Your task to perform on an android device: clear history in the chrome app Image 0: 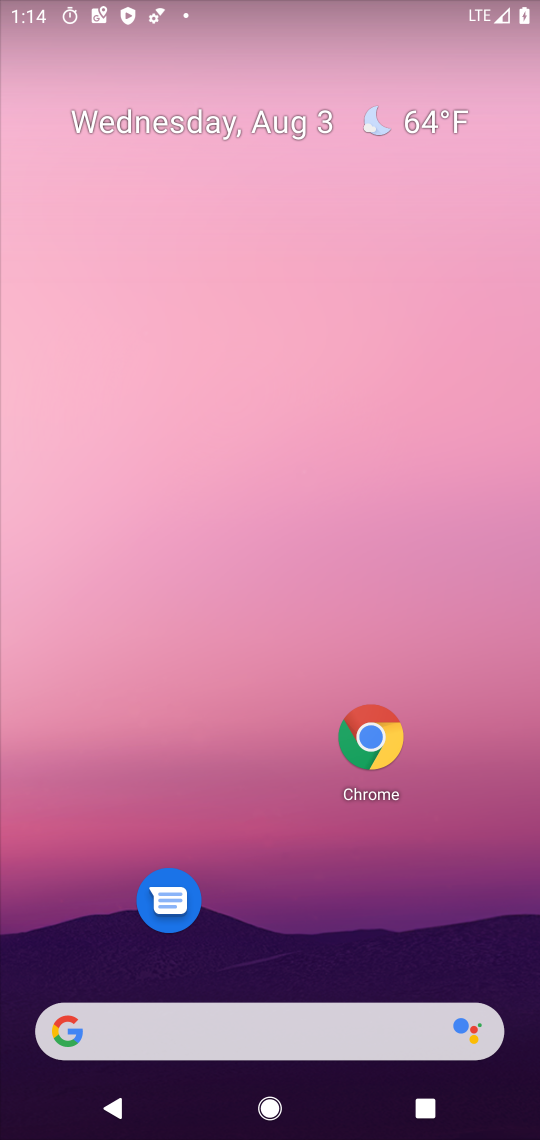
Step 0: drag from (372, 859) to (318, 31)
Your task to perform on an android device: clear history in the chrome app Image 1: 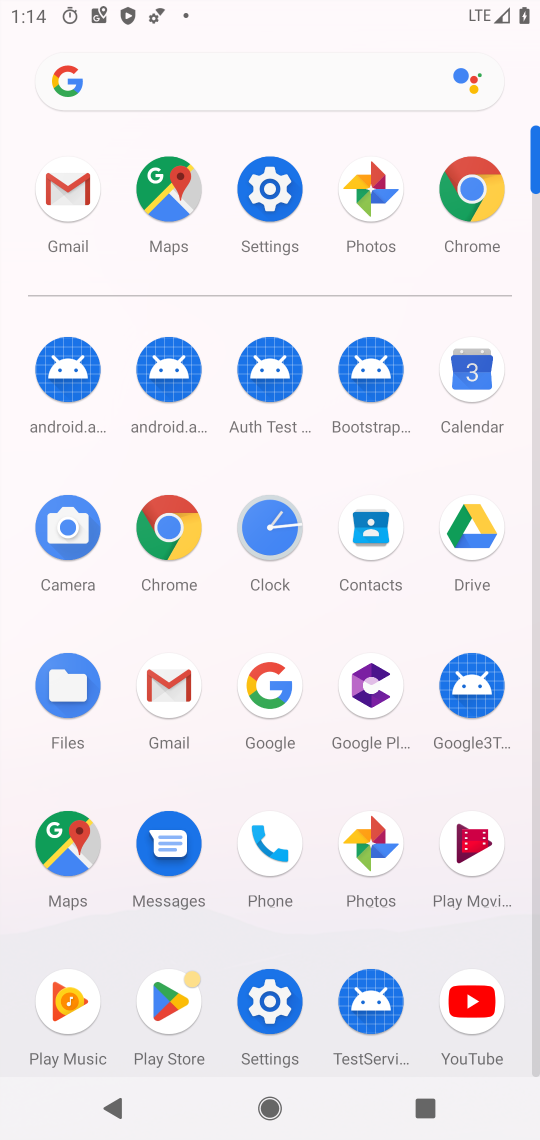
Step 1: click (167, 527)
Your task to perform on an android device: clear history in the chrome app Image 2: 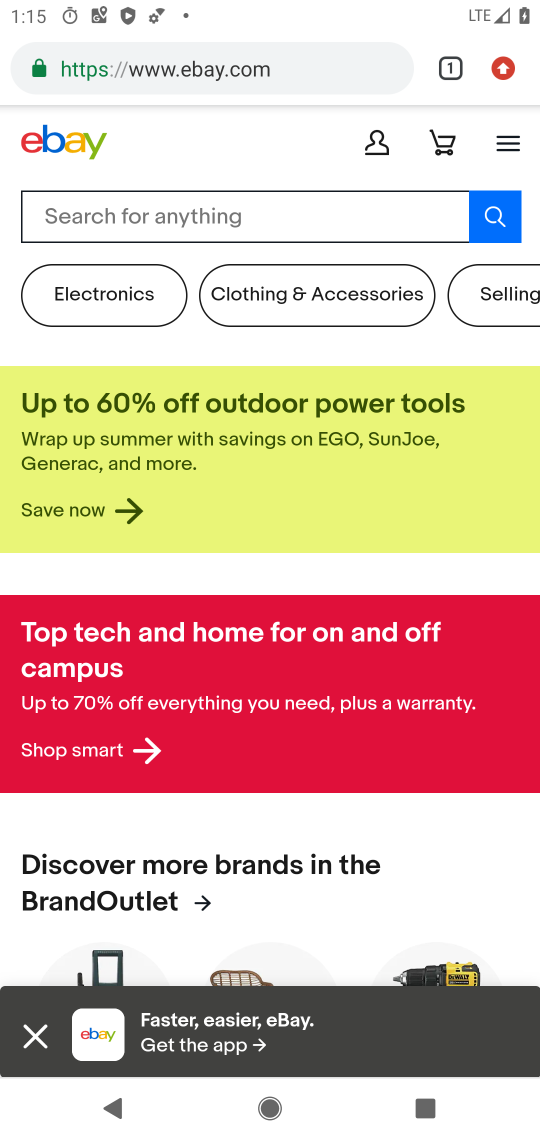
Step 2: drag from (530, 57) to (269, 480)
Your task to perform on an android device: clear history in the chrome app Image 3: 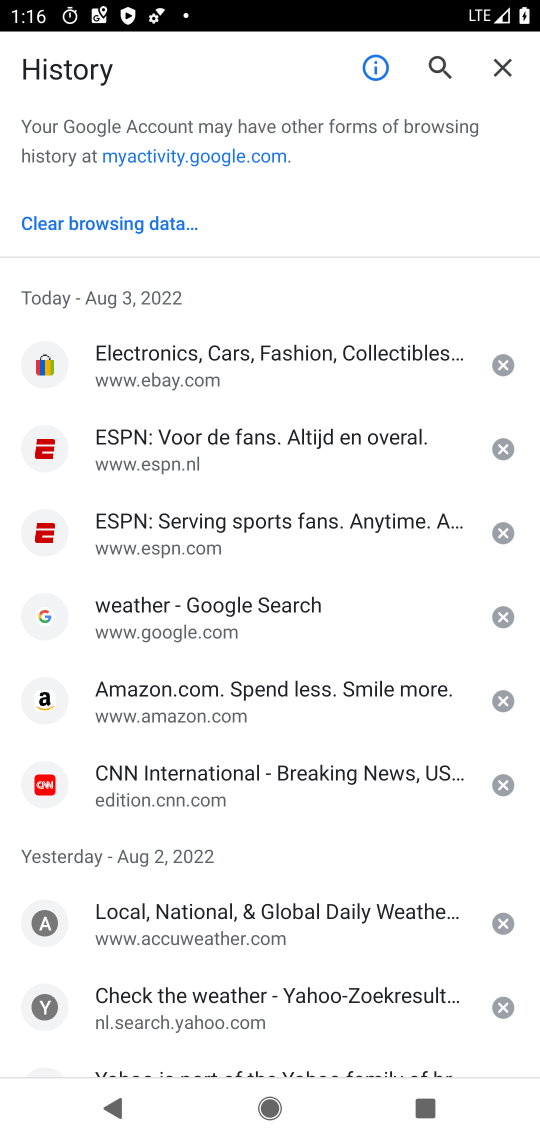
Step 3: click (169, 210)
Your task to perform on an android device: clear history in the chrome app Image 4: 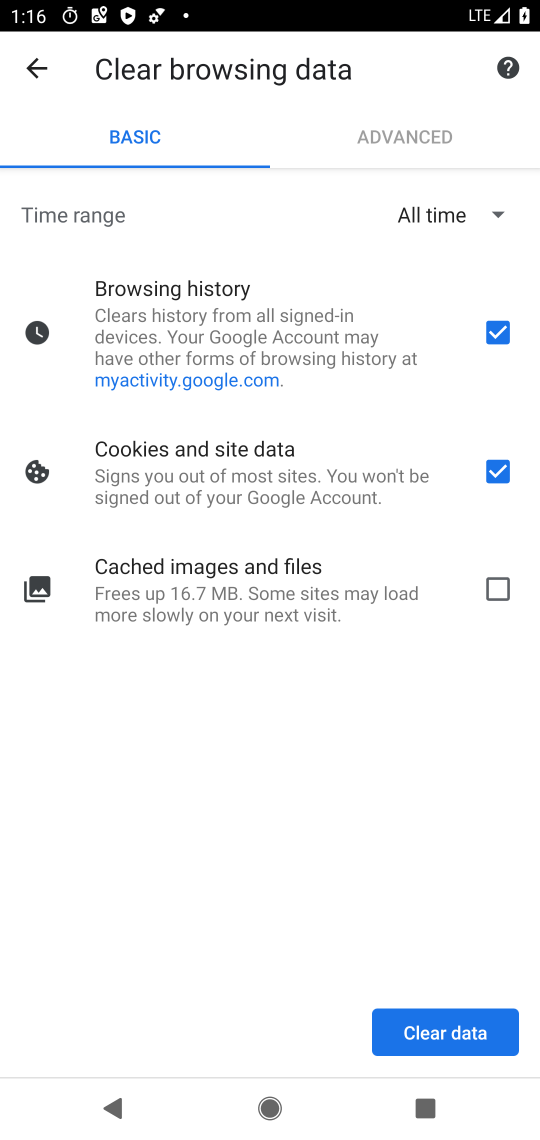
Step 4: click (471, 1026)
Your task to perform on an android device: clear history in the chrome app Image 5: 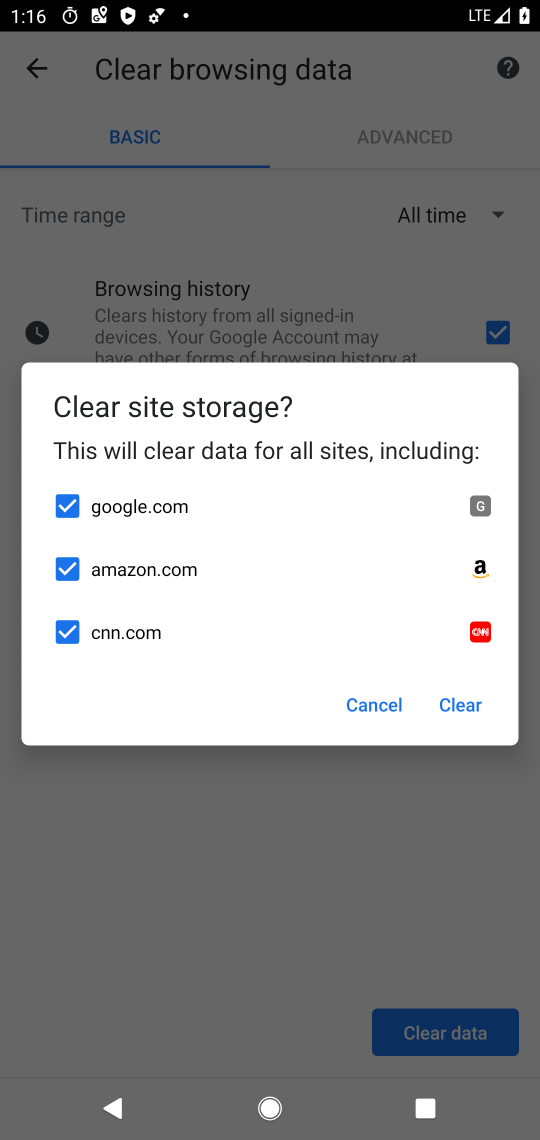
Step 5: click (467, 707)
Your task to perform on an android device: clear history in the chrome app Image 6: 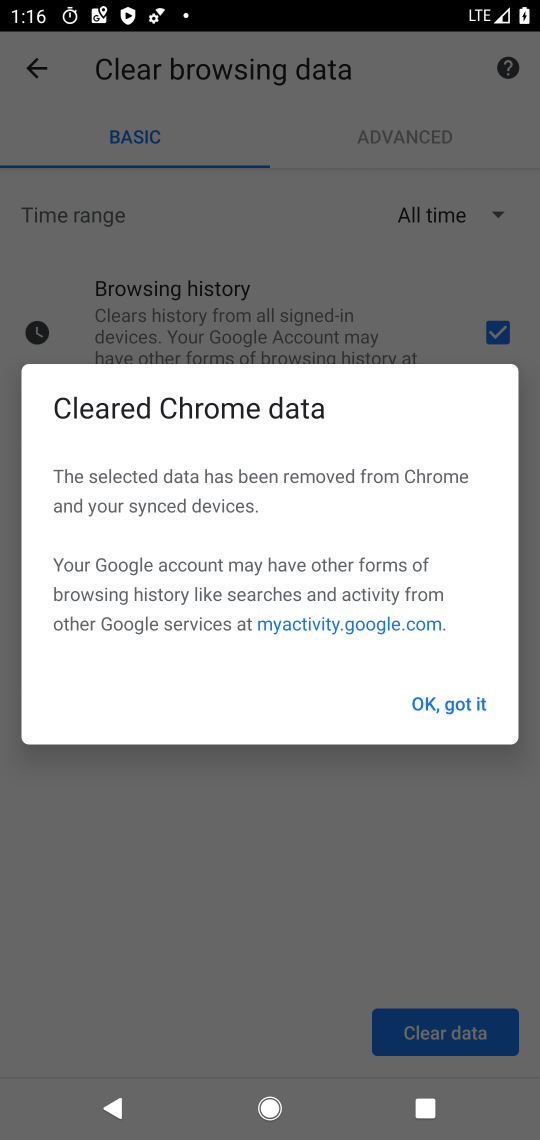
Step 6: click (466, 696)
Your task to perform on an android device: clear history in the chrome app Image 7: 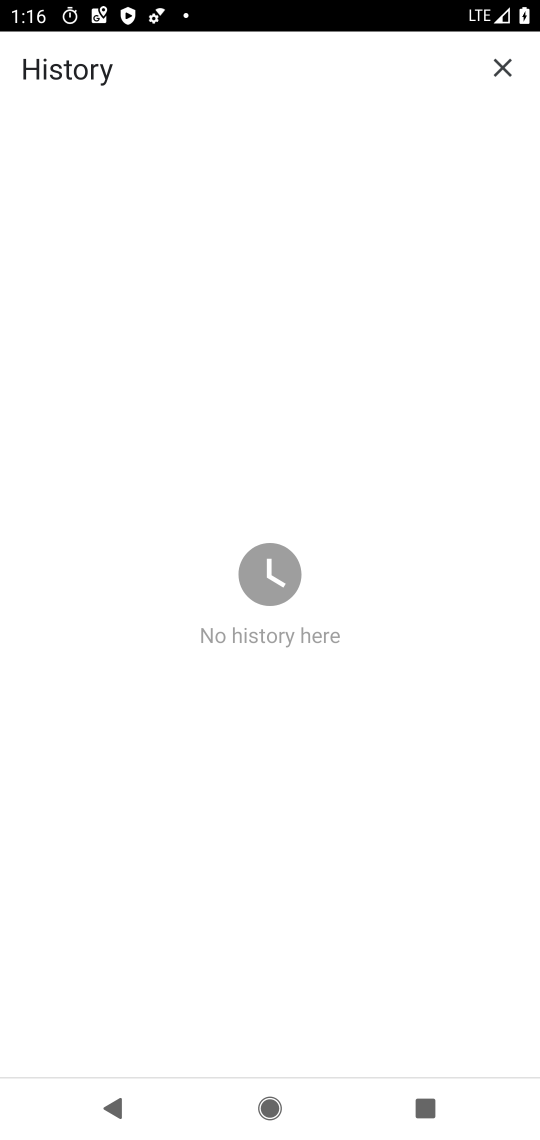
Step 7: task complete